Your task to perform on an android device: turn on the 12-hour format for clock Image 0: 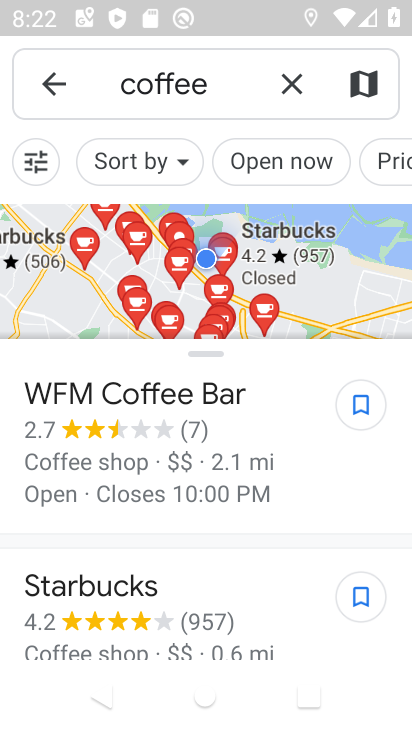
Step 0: press back button
Your task to perform on an android device: turn on the 12-hour format for clock Image 1: 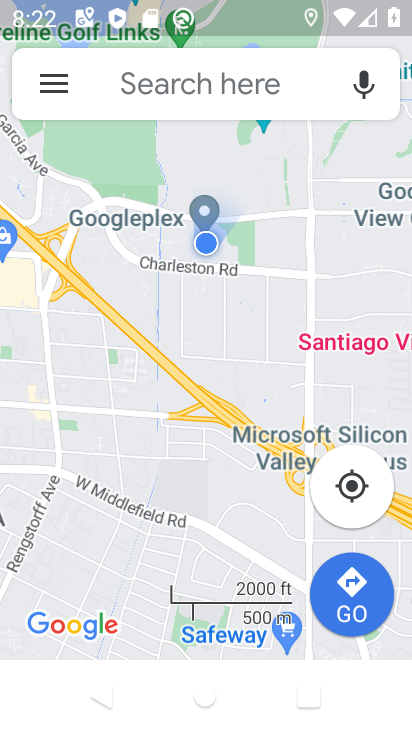
Step 1: press back button
Your task to perform on an android device: turn on the 12-hour format for clock Image 2: 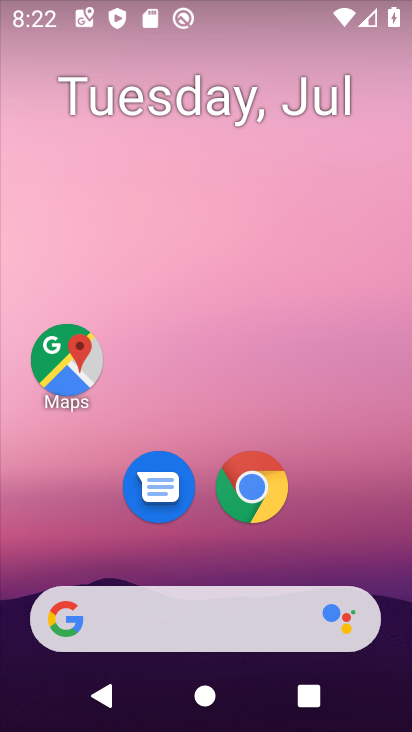
Step 2: drag from (197, 551) to (371, 0)
Your task to perform on an android device: turn on the 12-hour format for clock Image 3: 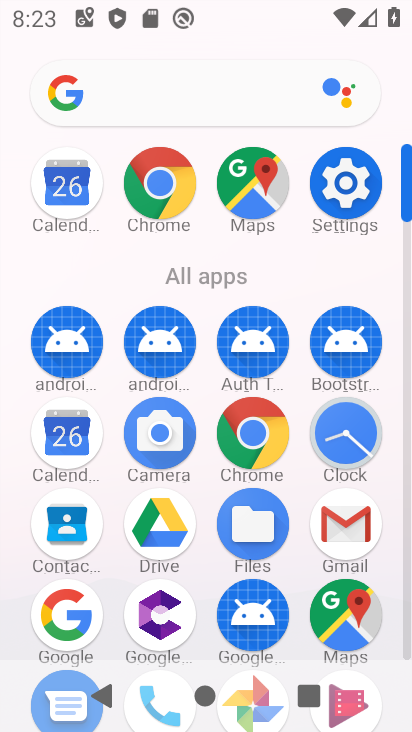
Step 3: click (352, 437)
Your task to perform on an android device: turn on the 12-hour format for clock Image 4: 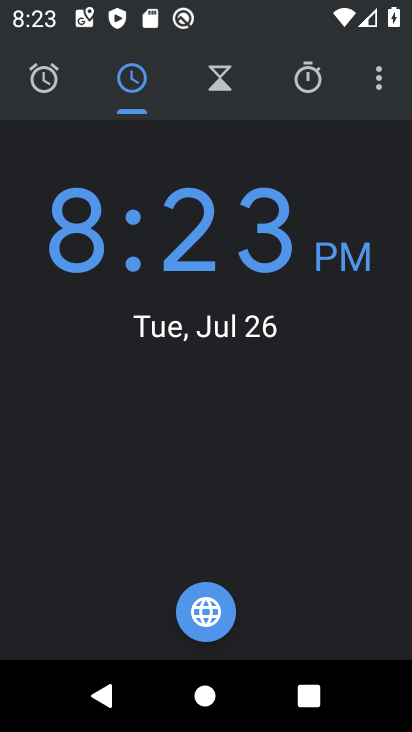
Step 4: click (373, 76)
Your task to perform on an android device: turn on the 12-hour format for clock Image 5: 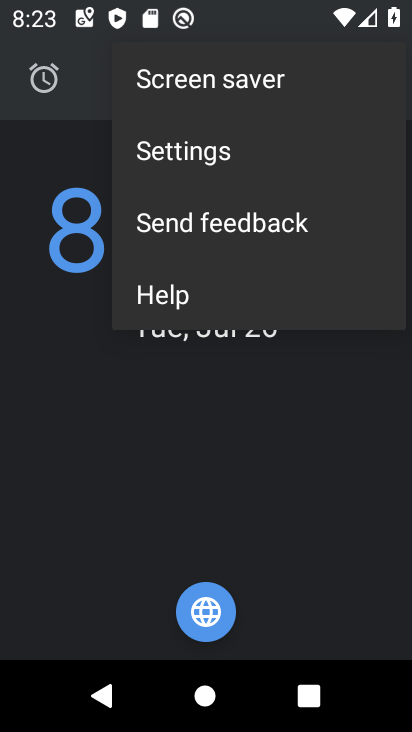
Step 5: click (232, 151)
Your task to perform on an android device: turn on the 12-hour format for clock Image 6: 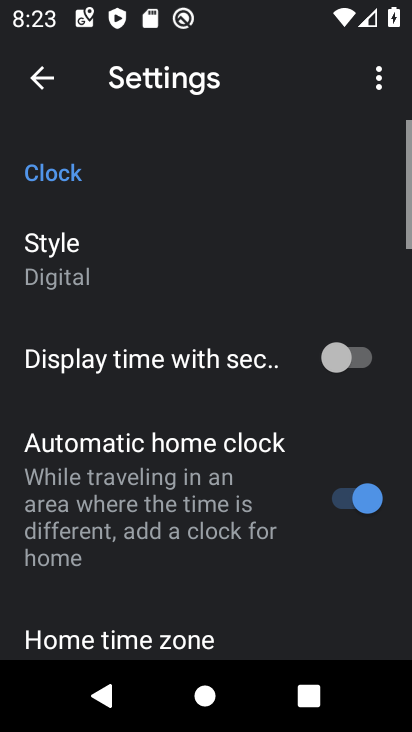
Step 6: drag from (149, 571) to (276, 36)
Your task to perform on an android device: turn on the 12-hour format for clock Image 7: 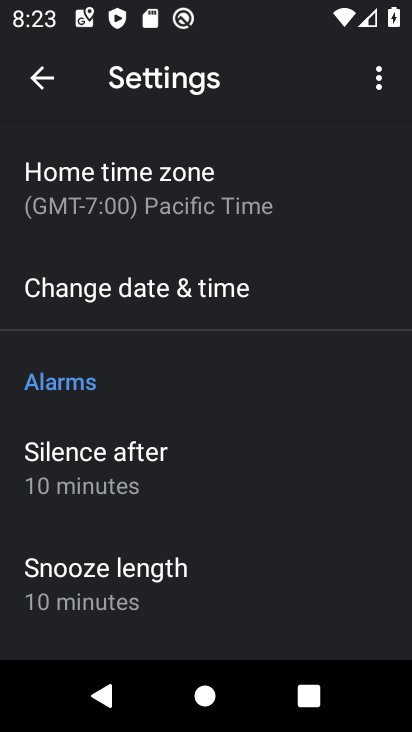
Step 7: click (138, 293)
Your task to perform on an android device: turn on the 12-hour format for clock Image 8: 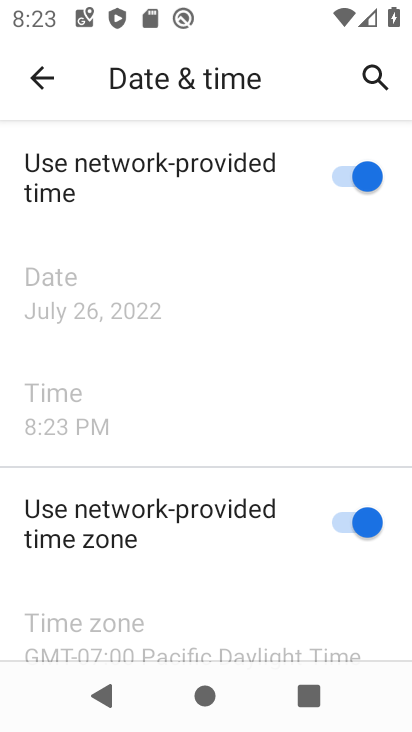
Step 8: task complete